Your task to perform on an android device: Open Android settings Image 0: 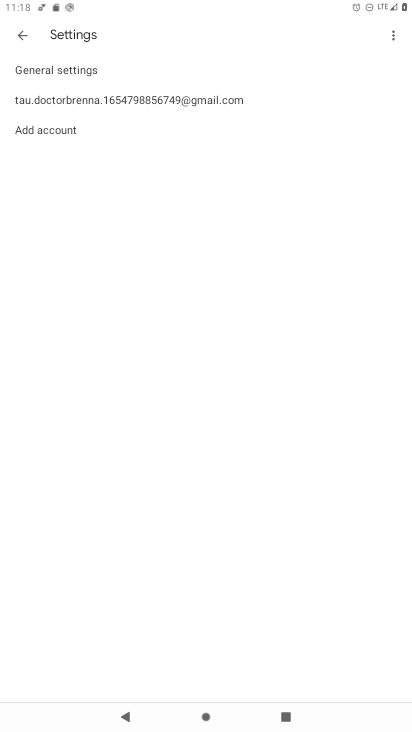
Step 0: press home button
Your task to perform on an android device: Open Android settings Image 1: 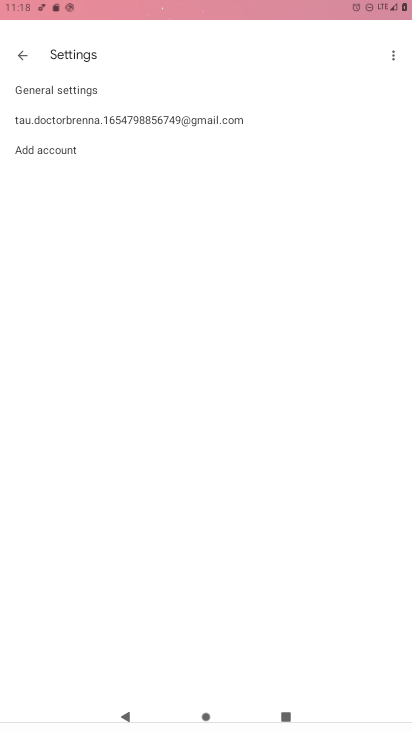
Step 1: drag from (281, 659) to (281, 49)
Your task to perform on an android device: Open Android settings Image 2: 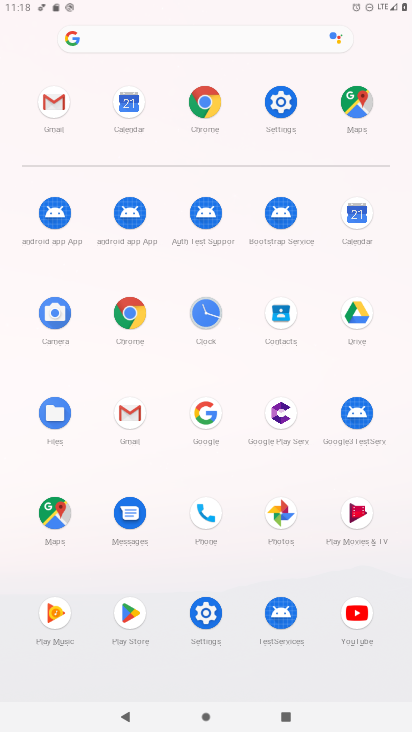
Step 2: drag from (292, 527) to (282, 159)
Your task to perform on an android device: Open Android settings Image 3: 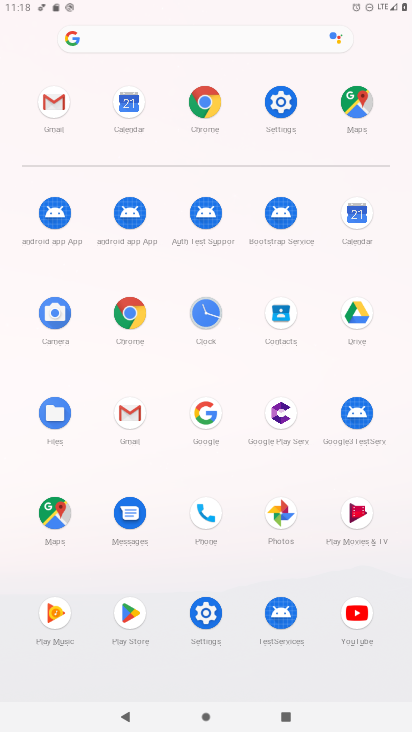
Step 3: click (187, 624)
Your task to perform on an android device: Open Android settings Image 4: 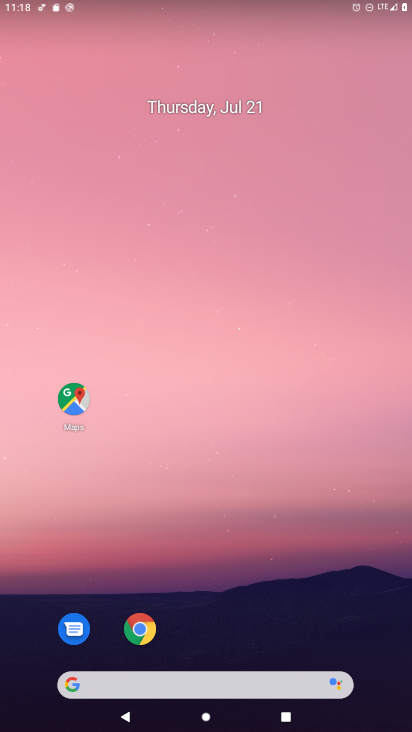
Step 4: drag from (260, 609) to (366, 174)
Your task to perform on an android device: Open Android settings Image 5: 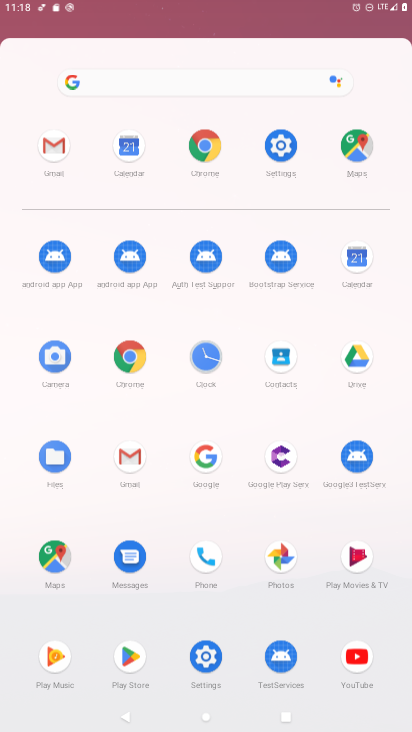
Step 5: drag from (275, 600) to (193, 78)
Your task to perform on an android device: Open Android settings Image 6: 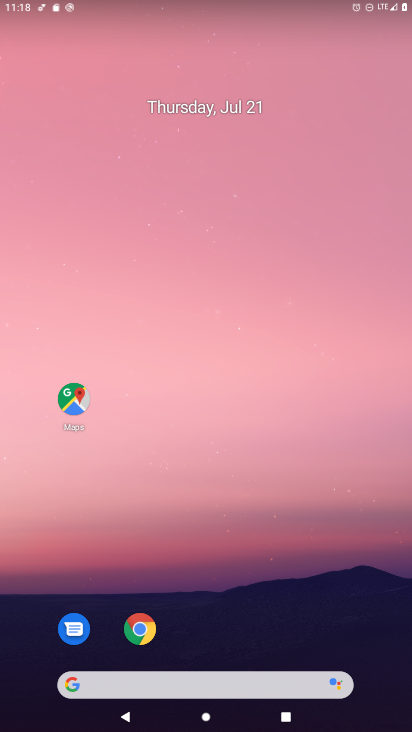
Step 6: drag from (226, 613) to (266, 37)
Your task to perform on an android device: Open Android settings Image 7: 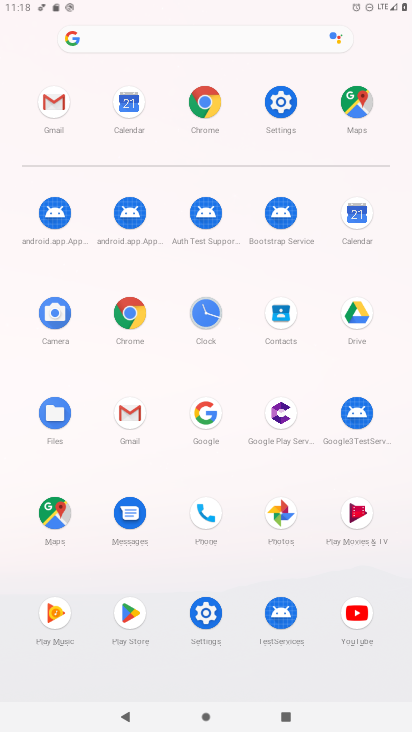
Step 7: click (205, 603)
Your task to perform on an android device: Open Android settings Image 8: 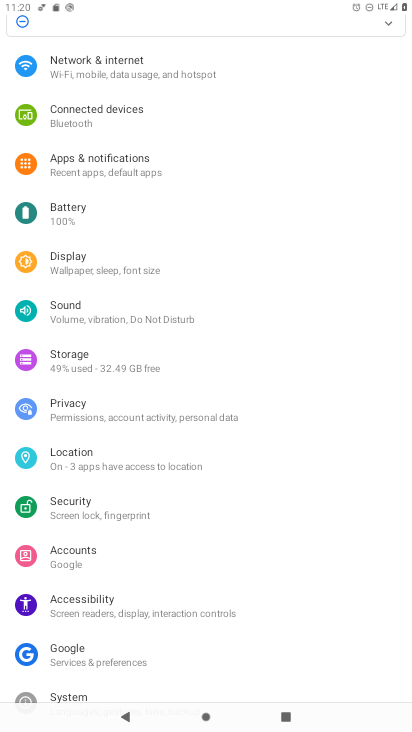
Step 8: drag from (134, 618) to (277, 24)
Your task to perform on an android device: Open Android settings Image 9: 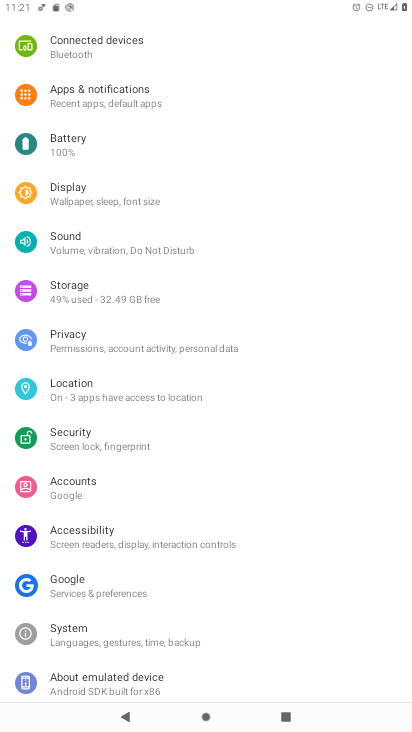
Step 9: click (148, 681)
Your task to perform on an android device: Open Android settings Image 10: 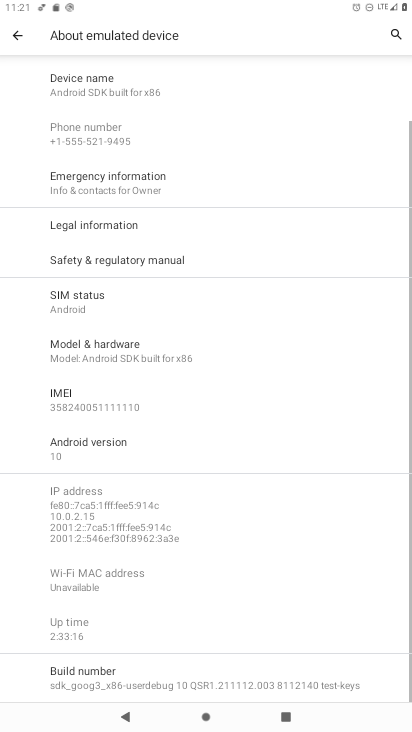
Step 10: click (113, 461)
Your task to perform on an android device: Open Android settings Image 11: 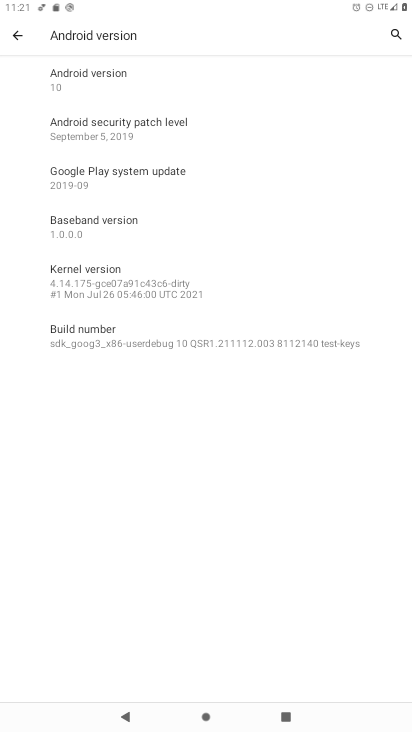
Step 11: task complete